Your task to perform on an android device: refresh tabs in the chrome app Image 0: 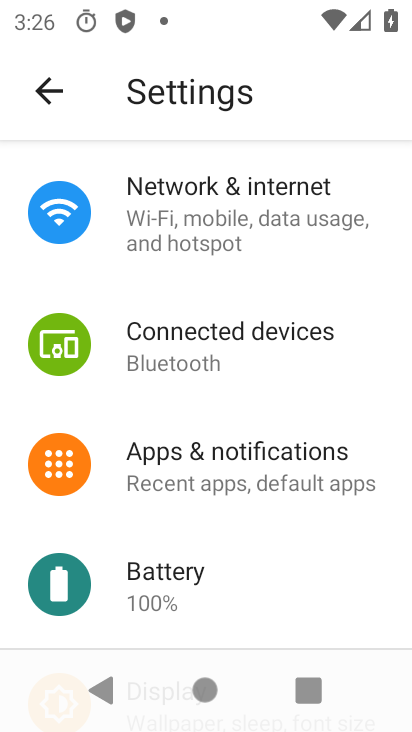
Step 0: press home button
Your task to perform on an android device: refresh tabs in the chrome app Image 1: 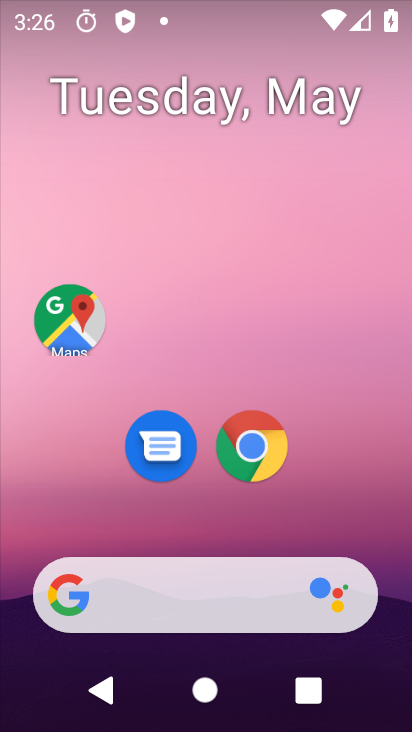
Step 1: click (250, 458)
Your task to perform on an android device: refresh tabs in the chrome app Image 2: 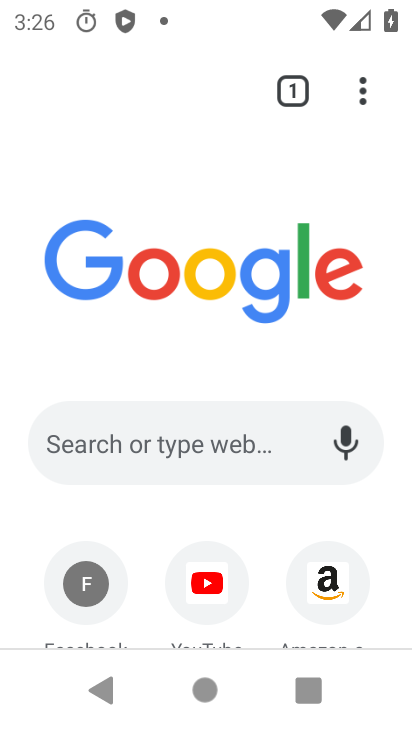
Step 2: click (363, 100)
Your task to perform on an android device: refresh tabs in the chrome app Image 3: 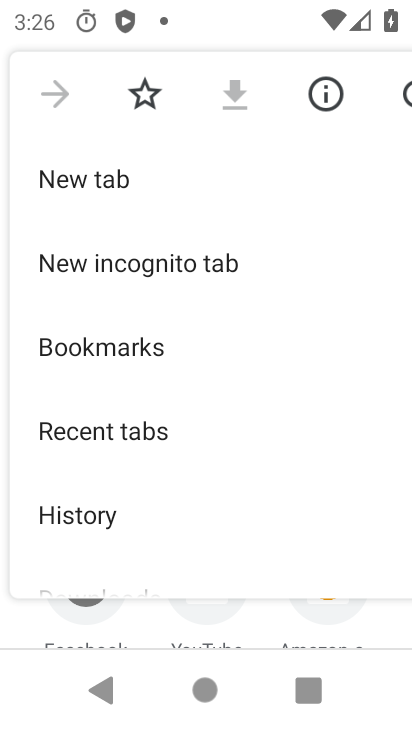
Step 3: click (400, 94)
Your task to perform on an android device: refresh tabs in the chrome app Image 4: 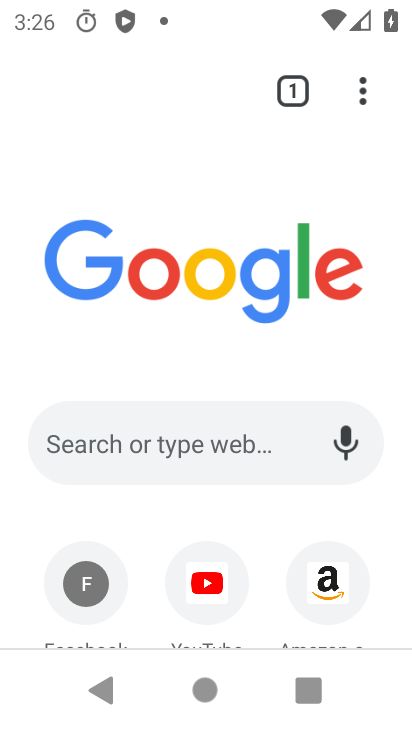
Step 4: task complete